Your task to perform on an android device: open chrome and create a bookmark for the current page Image 0: 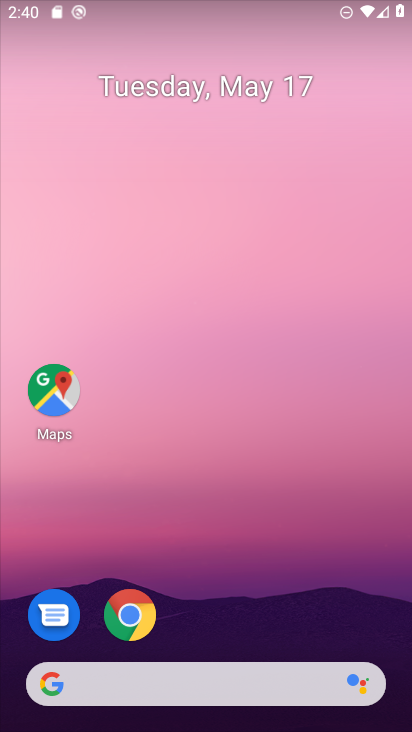
Step 0: click (139, 621)
Your task to perform on an android device: open chrome and create a bookmark for the current page Image 1: 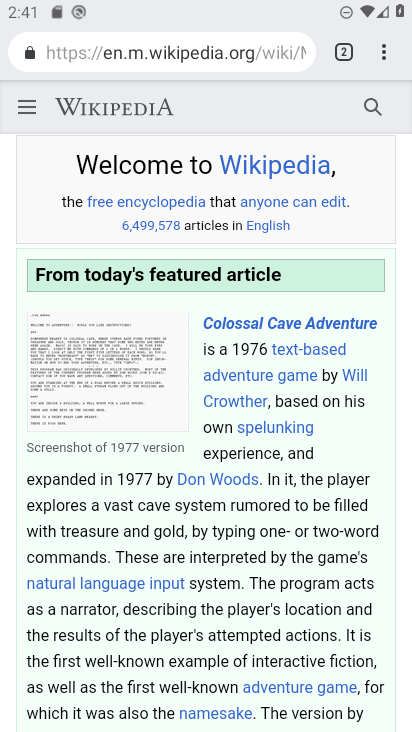
Step 1: click (386, 58)
Your task to perform on an android device: open chrome and create a bookmark for the current page Image 2: 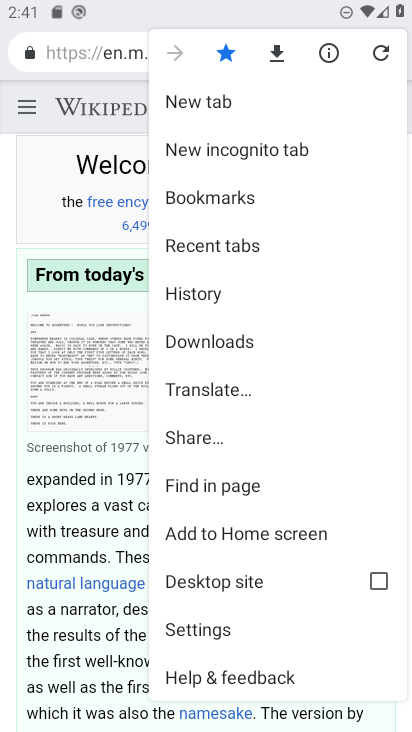
Step 2: task complete